Your task to perform on an android device: toggle pop-ups in chrome Image 0: 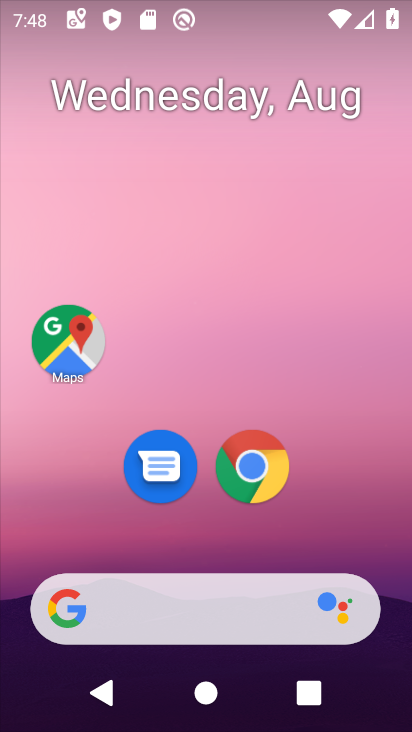
Step 0: drag from (352, 502) to (343, 99)
Your task to perform on an android device: toggle pop-ups in chrome Image 1: 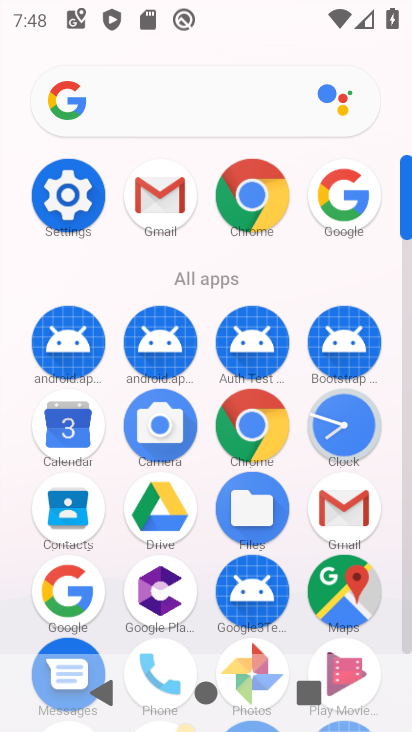
Step 1: click (249, 192)
Your task to perform on an android device: toggle pop-ups in chrome Image 2: 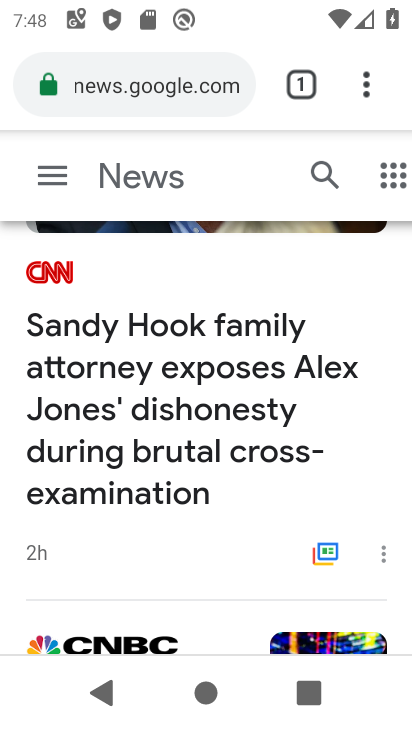
Step 2: drag from (368, 71) to (194, 489)
Your task to perform on an android device: toggle pop-ups in chrome Image 3: 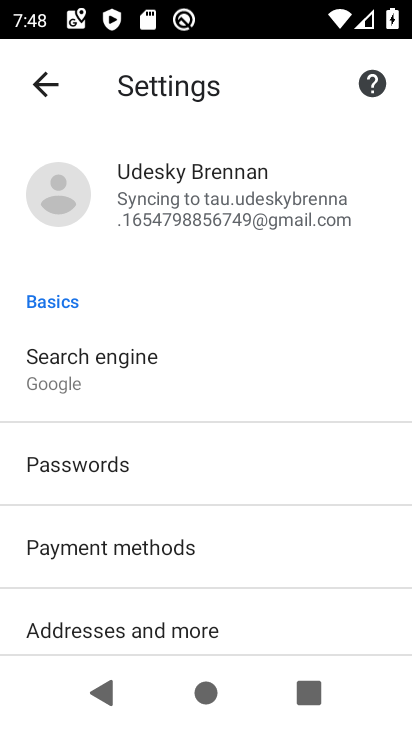
Step 3: drag from (300, 536) to (336, 207)
Your task to perform on an android device: toggle pop-ups in chrome Image 4: 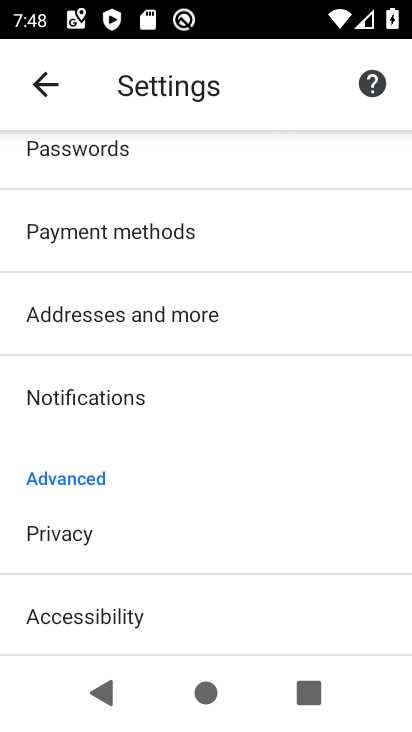
Step 4: drag from (301, 512) to (349, 187)
Your task to perform on an android device: toggle pop-ups in chrome Image 5: 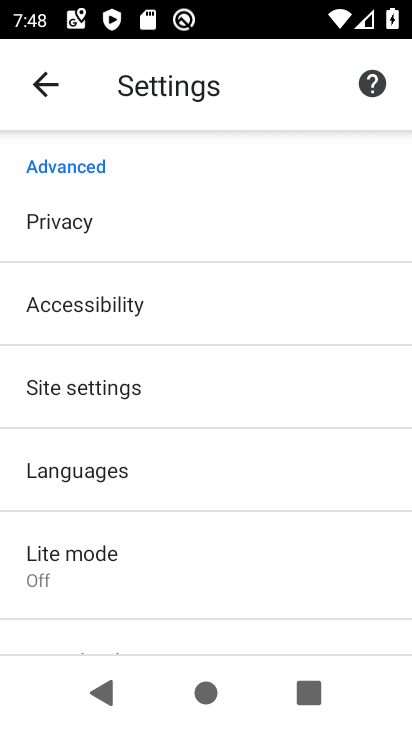
Step 5: click (95, 392)
Your task to perform on an android device: toggle pop-ups in chrome Image 6: 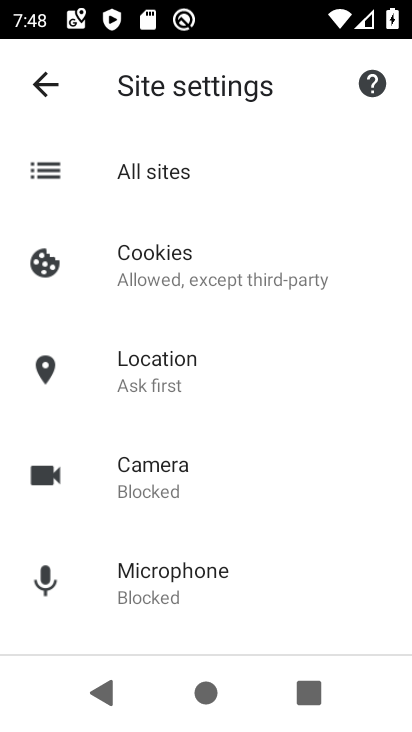
Step 6: drag from (297, 531) to (319, 242)
Your task to perform on an android device: toggle pop-ups in chrome Image 7: 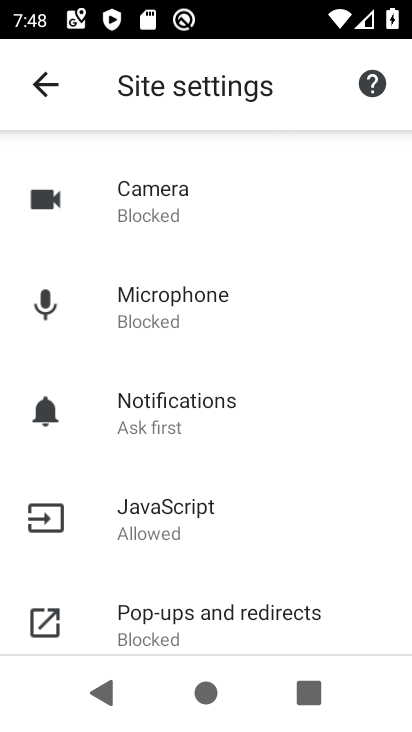
Step 7: click (172, 612)
Your task to perform on an android device: toggle pop-ups in chrome Image 8: 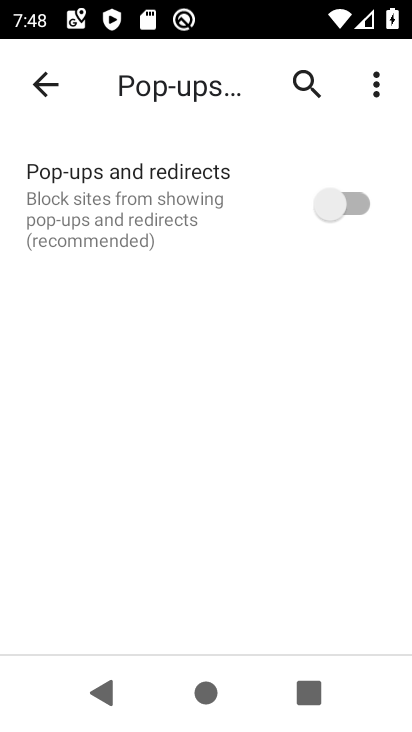
Step 8: click (356, 192)
Your task to perform on an android device: toggle pop-ups in chrome Image 9: 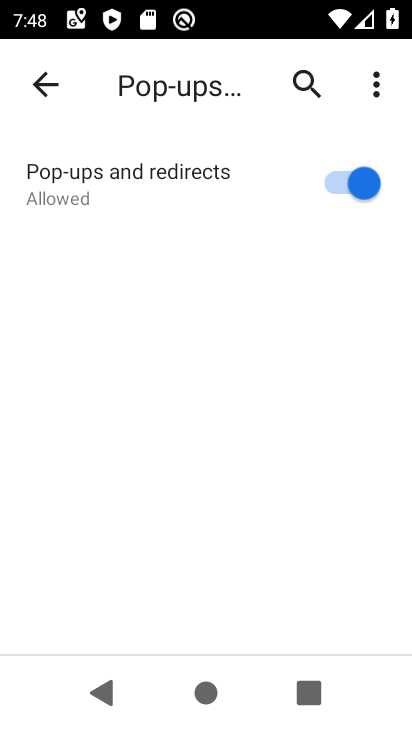
Step 9: task complete